Your task to perform on an android device: read, delete, or share a saved page in the chrome app Image 0: 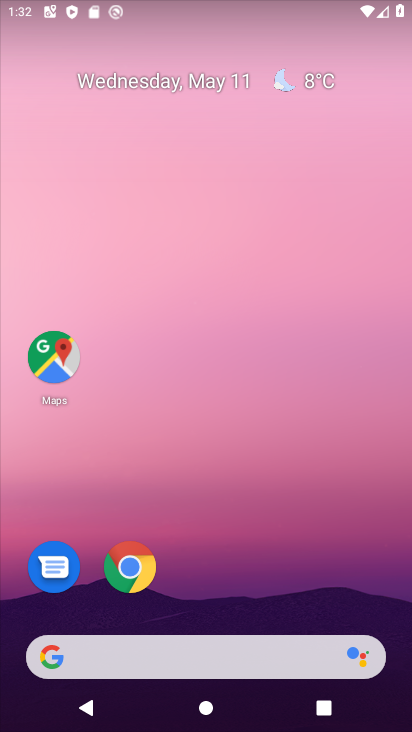
Step 0: click (141, 561)
Your task to perform on an android device: read, delete, or share a saved page in the chrome app Image 1: 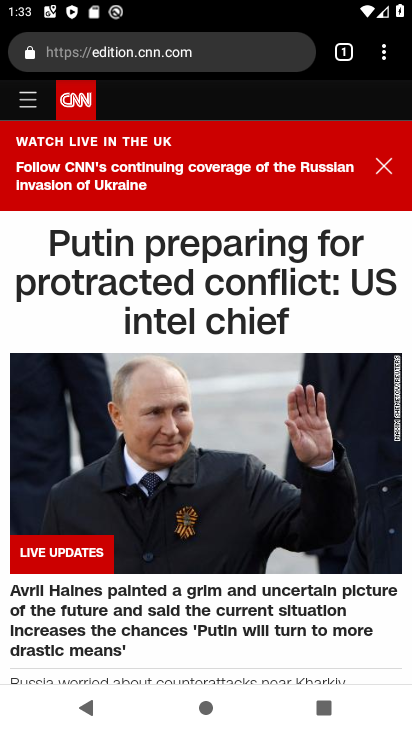
Step 1: click (386, 50)
Your task to perform on an android device: read, delete, or share a saved page in the chrome app Image 2: 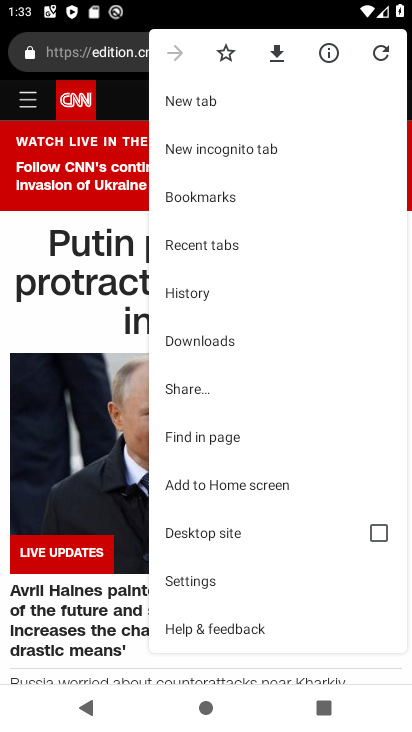
Step 2: click (244, 341)
Your task to perform on an android device: read, delete, or share a saved page in the chrome app Image 3: 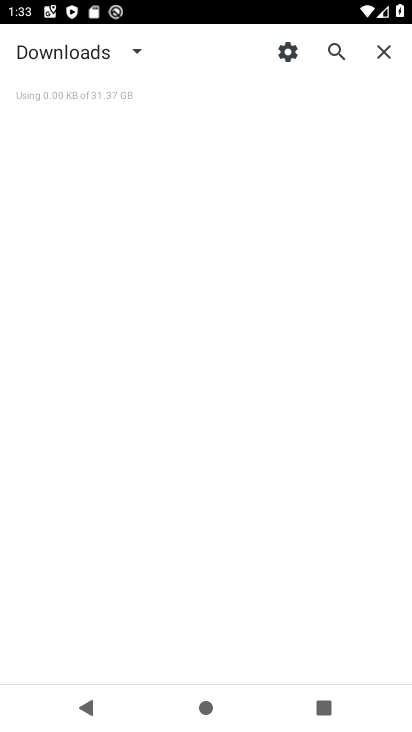
Step 3: task complete